Your task to perform on an android device: Open calendar and show me the third week of next month Image 0: 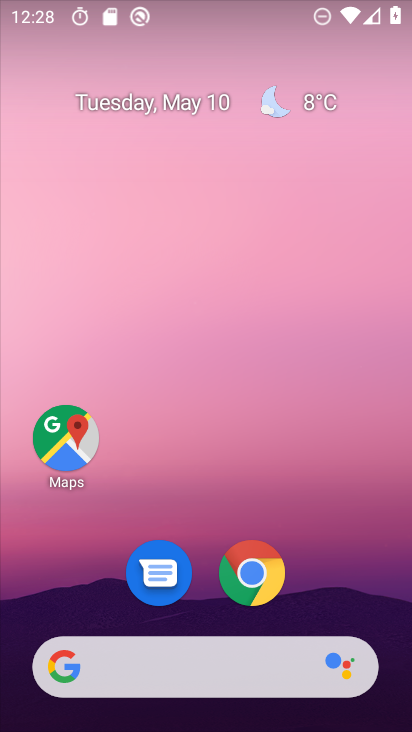
Step 0: drag from (206, 608) to (302, 6)
Your task to perform on an android device: Open calendar and show me the third week of next month Image 1: 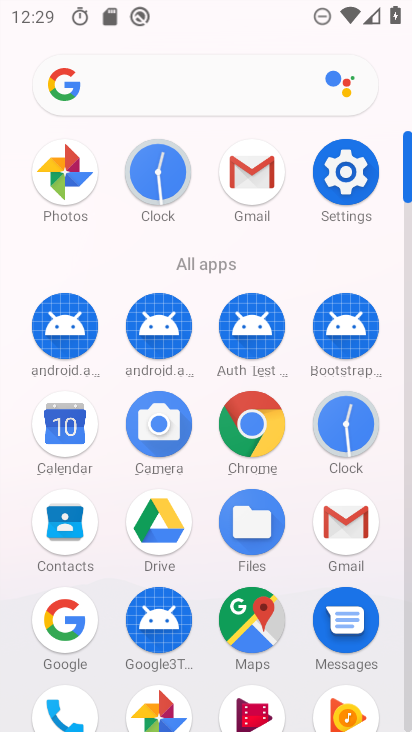
Step 1: click (63, 434)
Your task to perform on an android device: Open calendar and show me the third week of next month Image 2: 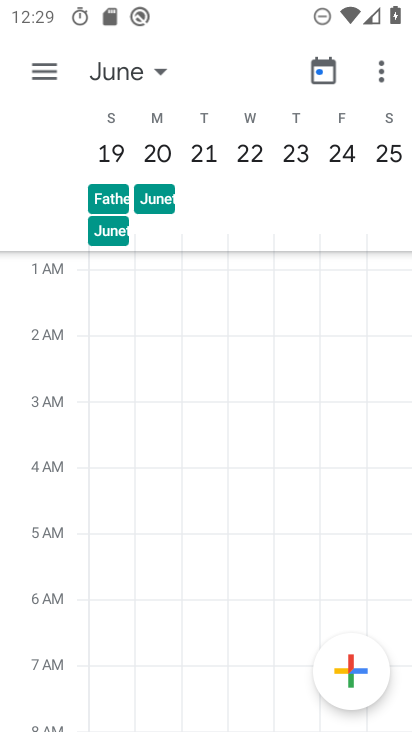
Step 2: task complete